Your task to perform on an android device: turn off wifi Image 0: 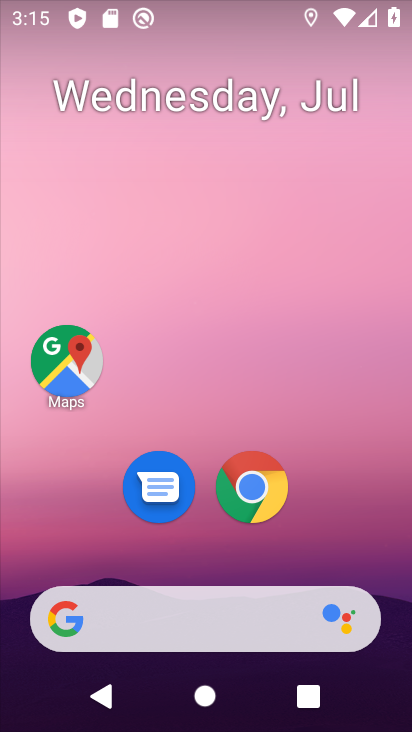
Step 0: drag from (148, 16) to (175, 493)
Your task to perform on an android device: turn off wifi Image 1: 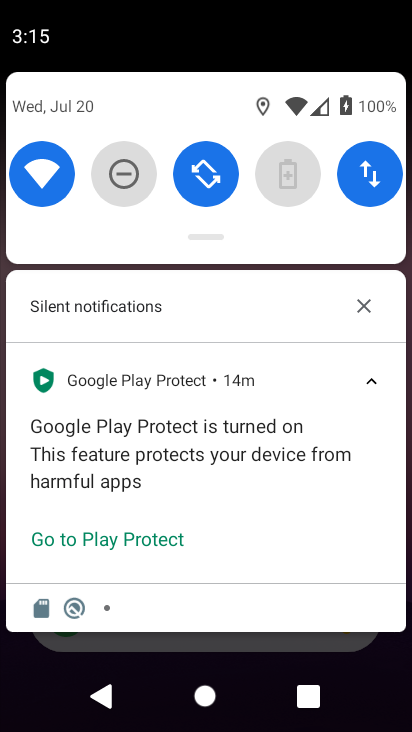
Step 1: click (55, 169)
Your task to perform on an android device: turn off wifi Image 2: 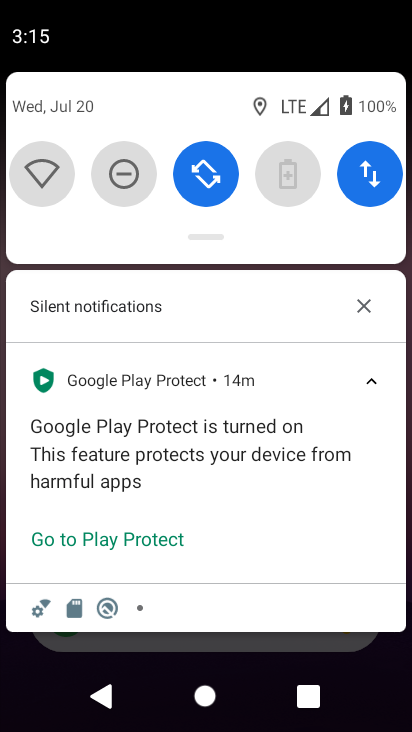
Step 2: task complete